Your task to perform on an android device: snooze an email in the gmail app Image 0: 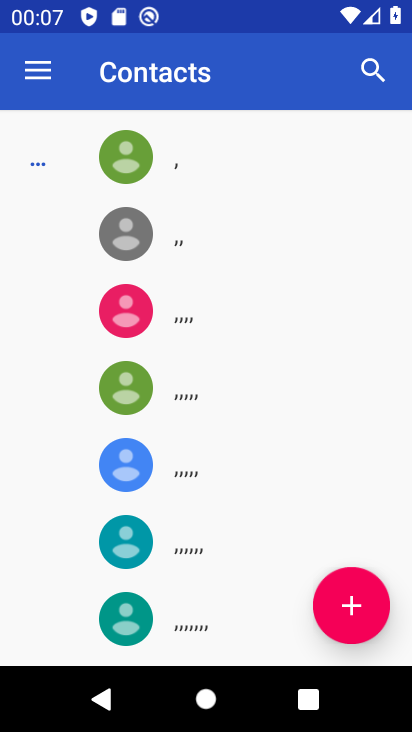
Step 0: press home button
Your task to perform on an android device: snooze an email in the gmail app Image 1: 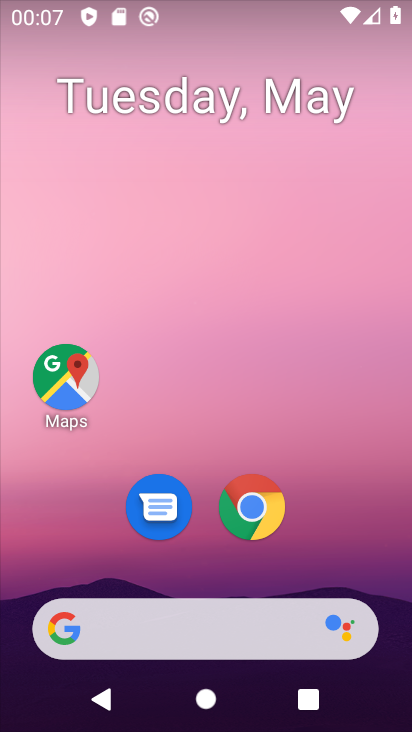
Step 1: drag from (137, 579) to (136, 183)
Your task to perform on an android device: snooze an email in the gmail app Image 2: 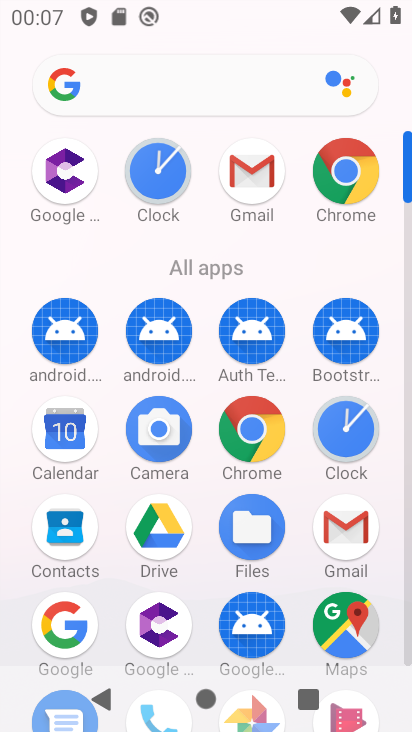
Step 2: click (268, 181)
Your task to perform on an android device: snooze an email in the gmail app Image 3: 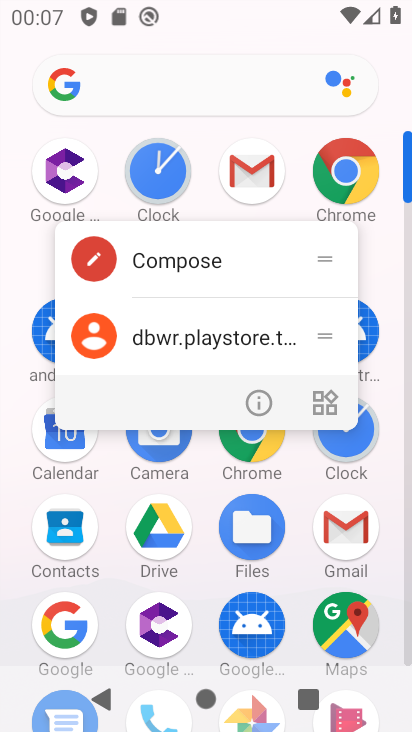
Step 3: click (259, 175)
Your task to perform on an android device: snooze an email in the gmail app Image 4: 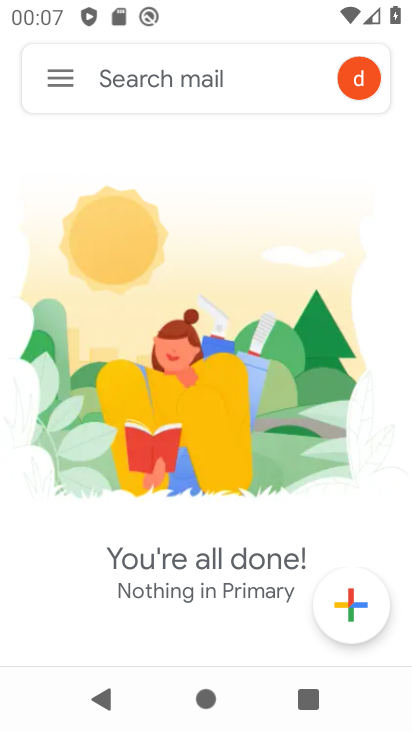
Step 4: click (60, 78)
Your task to perform on an android device: snooze an email in the gmail app Image 5: 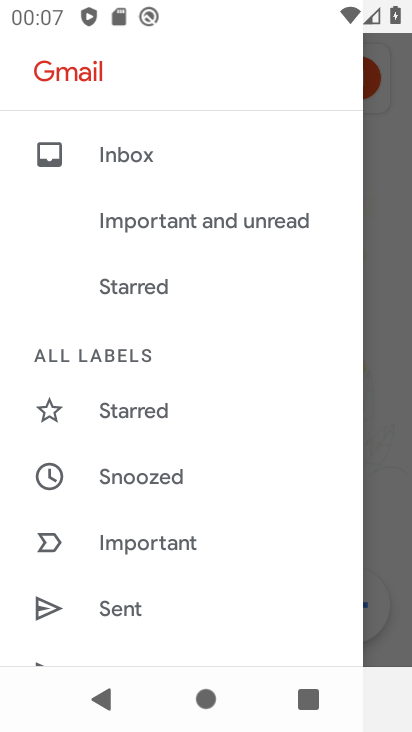
Step 5: click (127, 479)
Your task to perform on an android device: snooze an email in the gmail app Image 6: 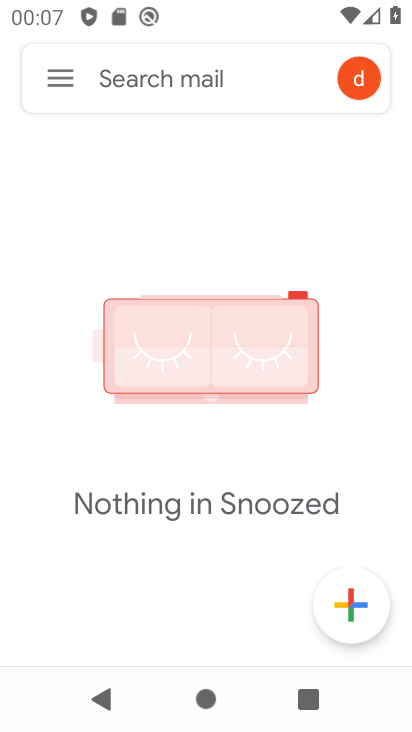
Step 6: task complete